Your task to perform on an android device: Go to sound settings Image 0: 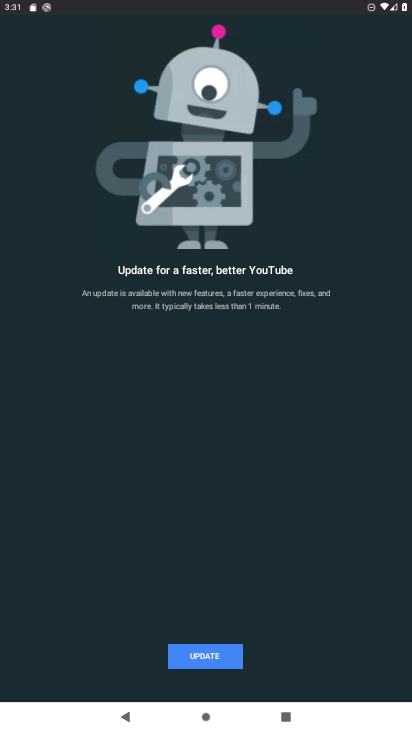
Step 0: press home button
Your task to perform on an android device: Go to sound settings Image 1: 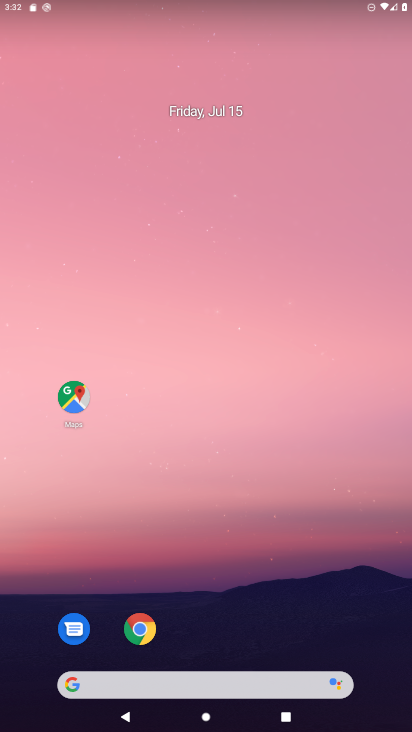
Step 1: drag from (308, 608) to (264, 24)
Your task to perform on an android device: Go to sound settings Image 2: 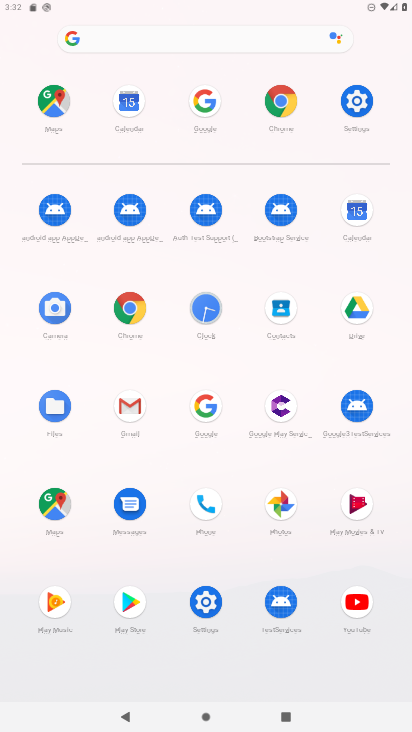
Step 2: click (350, 97)
Your task to perform on an android device: Go to sound settings Image 3: 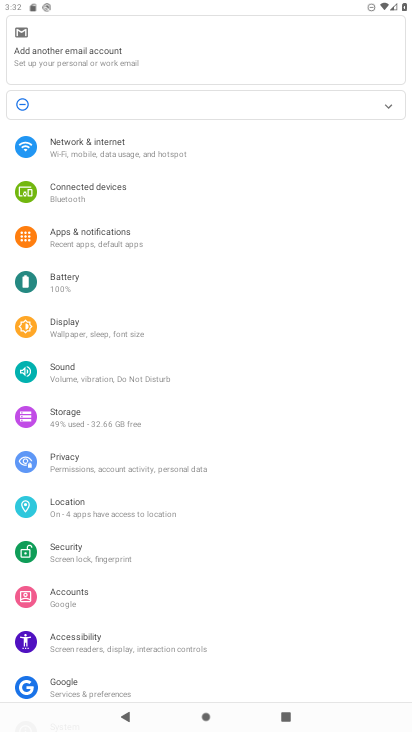
Step 3: click (67, 368)
Your task to perform on an android device: Go to sound settings Image 4: 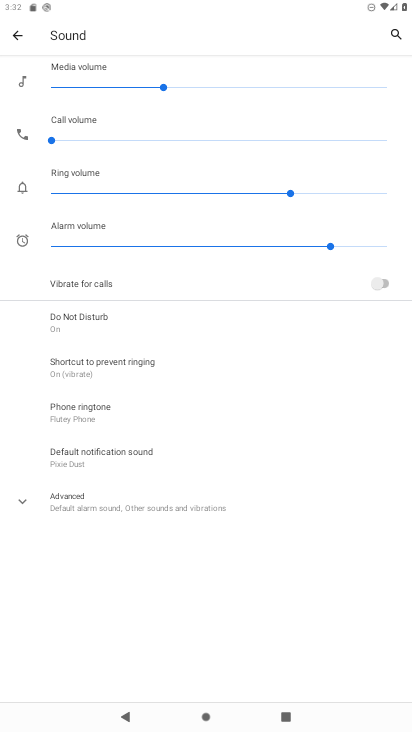
Step 4: task complete